Your task to perform on an android device: Go to location settings Image 0: 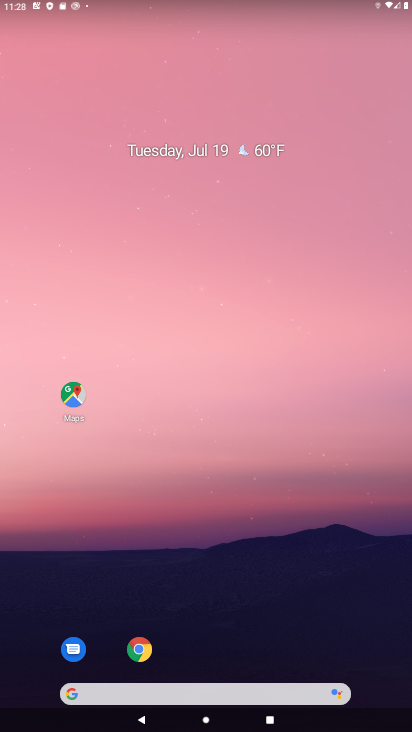
Step 0: drag from (204, 697) to (209, 163)
Your task to perform on an android device: Go to location settings Image 1: 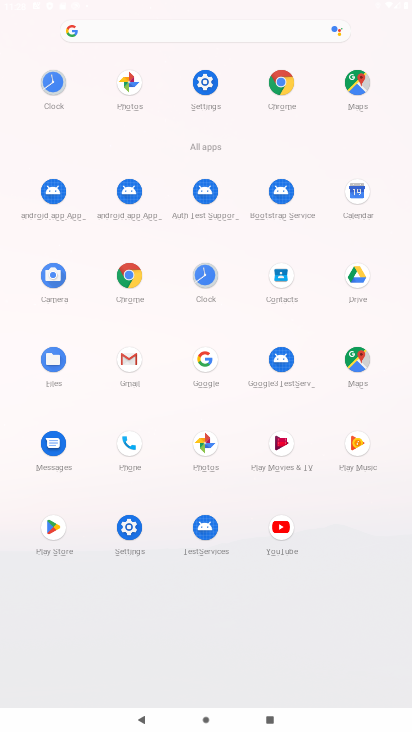
Step 1: click (207, 76)
Your task to perform on an android device: Go to location settings Image 2: 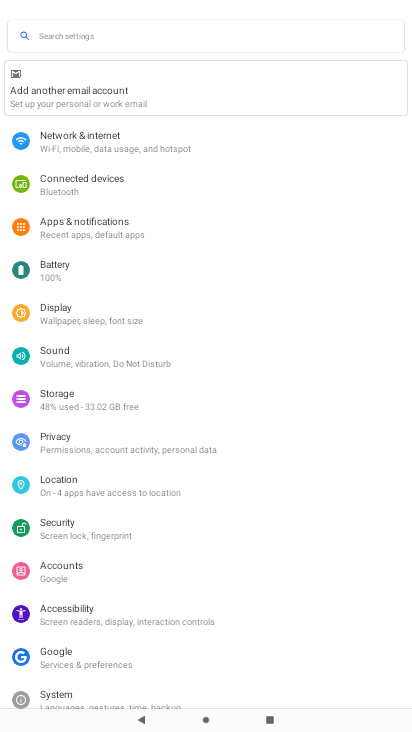
Step 2: click (69, 495)
Your task to perform on an android device: Go to location settings Image 3: 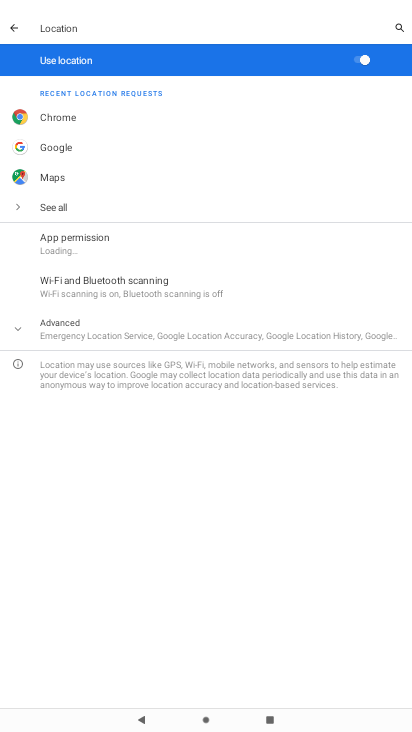
Step 3: task complete